Your task to perform on an android device: Clear all items from cart on target. Search for "razer blackwidow" on target, select the first entry, and add it to the cart. Image 0: 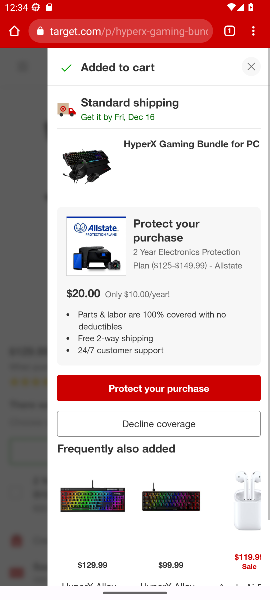
Step 0: press home button
Your task to perform on an android device: Clear all items from cart on target. Search for "razer blackwidow" on target, select the first entry, and add it to the cart. Image 1: 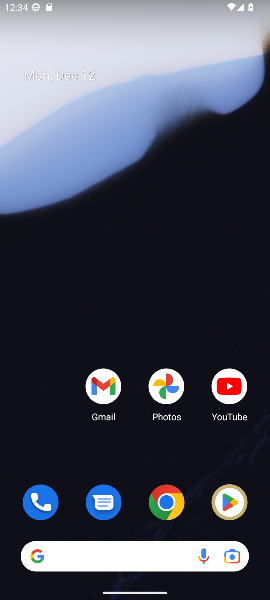
Step 1: click (181, 518)
Your task to perform on an android device: Clear all items from cart on target. Search for "razer blackwidow" on target, select the first entry, and add it to the cart. Image 2: 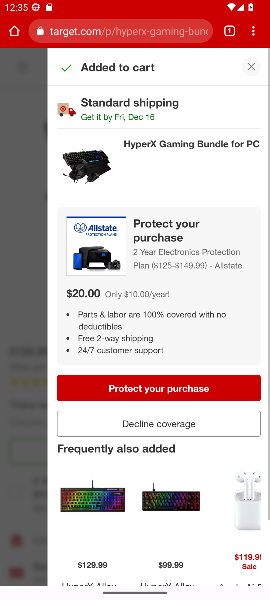
Step 2: task complete